Your task to perform on an android device: Open calendar and show me the third week of next month Image 0: 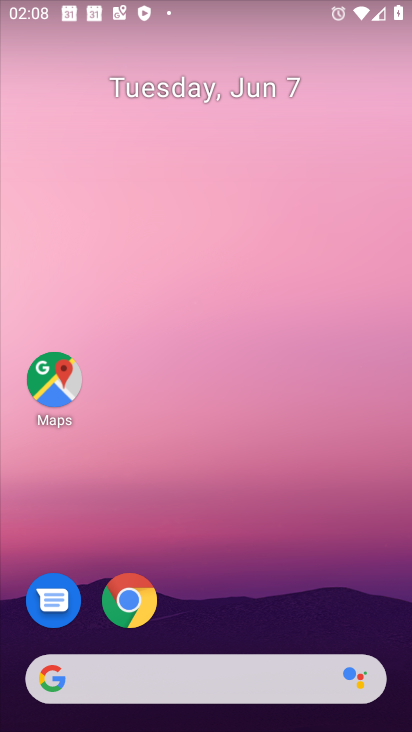
Step 0: drag from (226, 716) to (164, 183)
Your task to perform on an android device: Open calendar and show me the third week of next month Image 1: 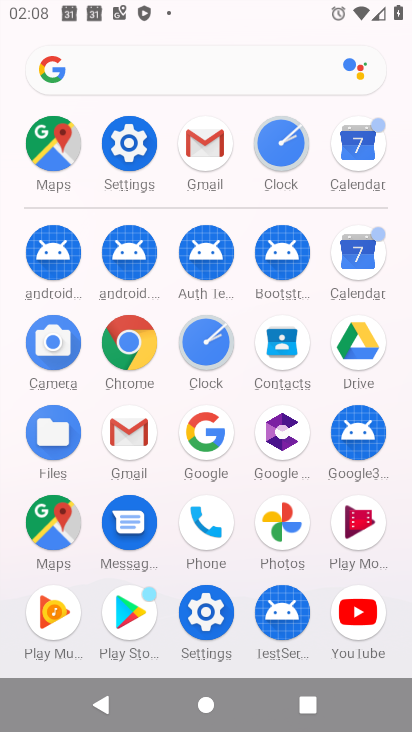
Step 1: click (354, 257)
Your task to perform on an android device: Open calendar and show me the third week of next month Image 2: 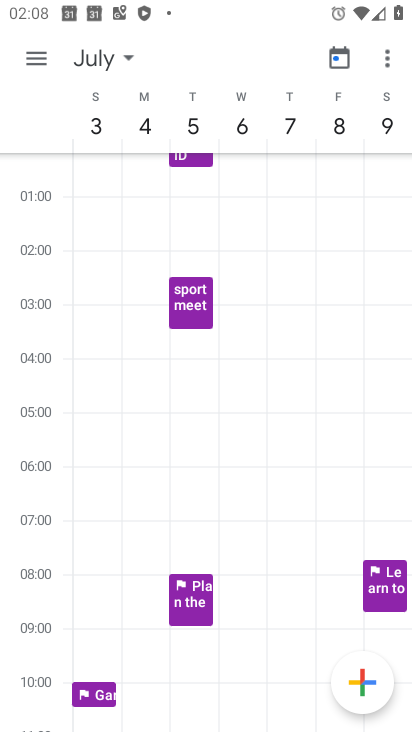
Step 2: click (127, 55)
Your task to perform on an android device: Open calendar and show me the third week of next month Image 3: 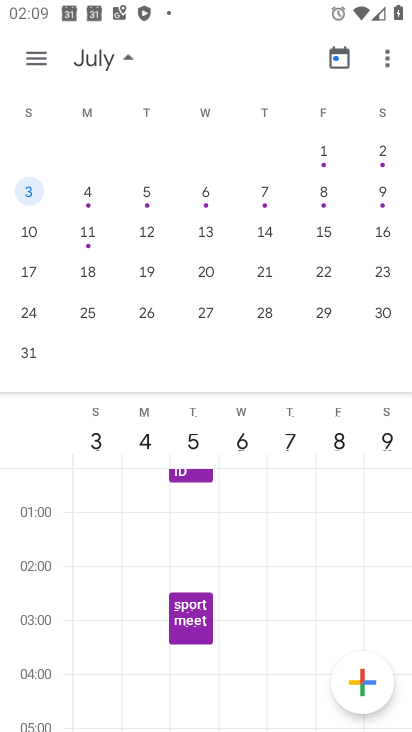
Step 3: click (82, 271)
Your task to perform on an android device: Open calendar and show me the third week of next month Image 4: 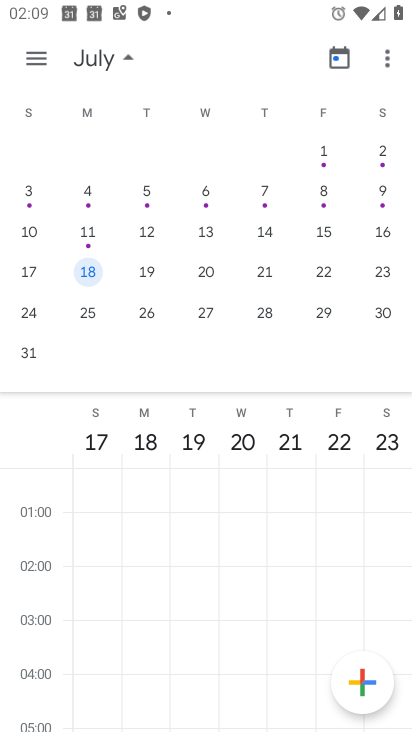
Step 4: click (85, 269)
Your task to perform on an android device: Open calendar and show me the third week of next month Image 5: 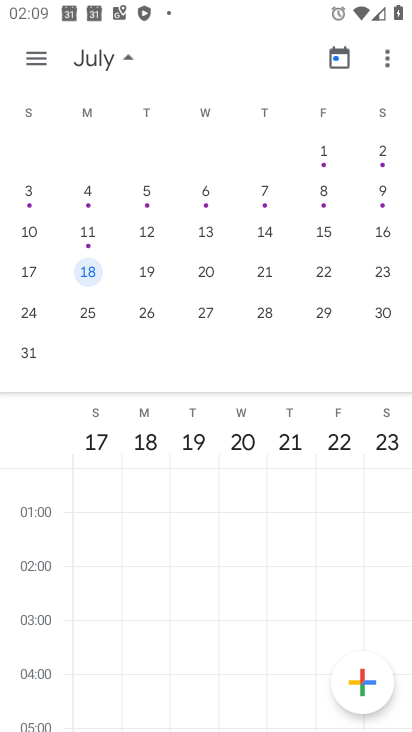
Step 5: click (145, 438)
Your task to perform on an android device: Open calendar and show me the third week of next month Image 6: 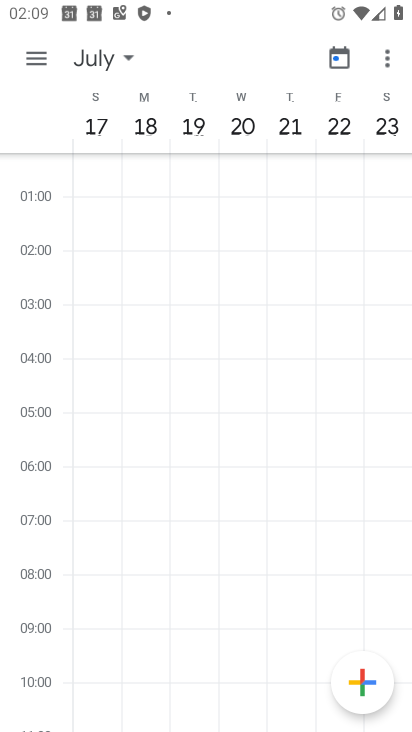
Step 6: task complete